Your task to perform on an android device: install app "Google News" Image 0: 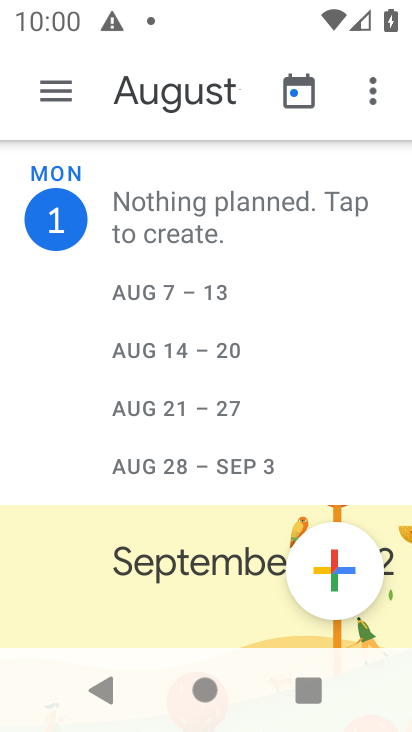
Step 0: press home button
Your task to perform on an android device: install app "Google News" Image 1: 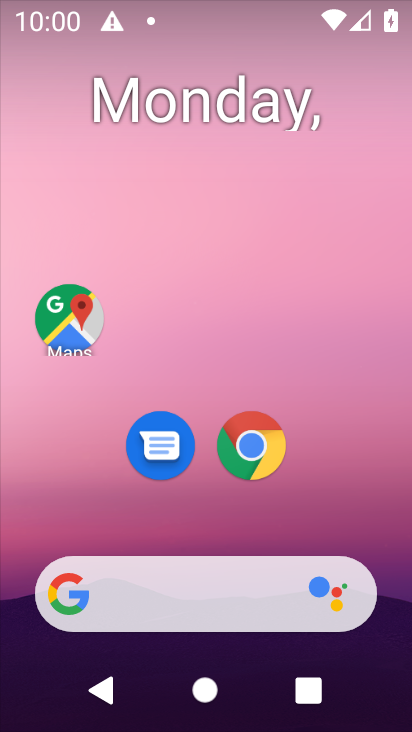
Step 1: drag from (384, 608) to (210, 170)
Your task to perform on an android device: install app "Google News" Image 2: 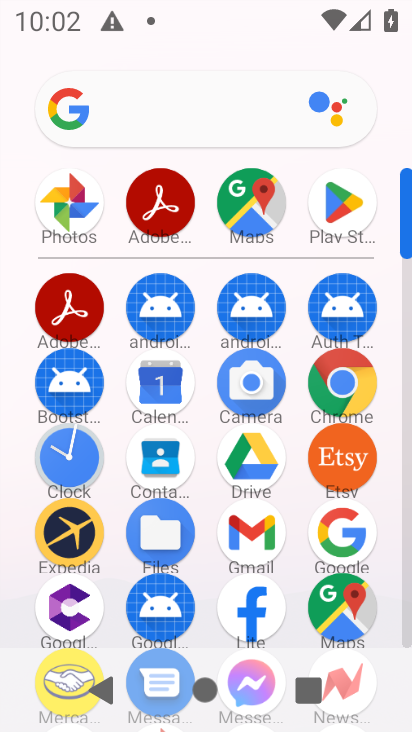
Step 2: click (336, 201)
Your task to perform on an android device: install app "Google News" Image 3: 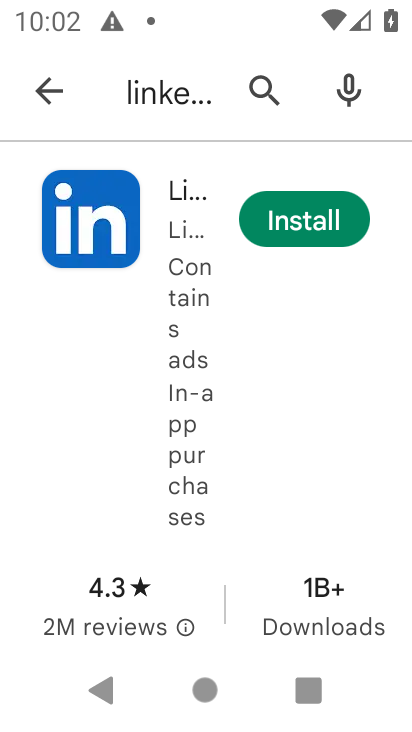
Step 3: press back button
Your task to perform on an android device: install app "Google News" Image 4: 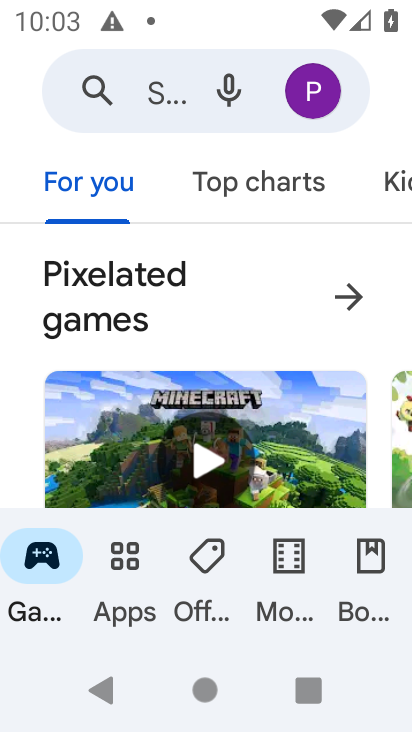
Step 4: click (175, 97)
Your task to perform on an android device: install app "Google News" Image 5: 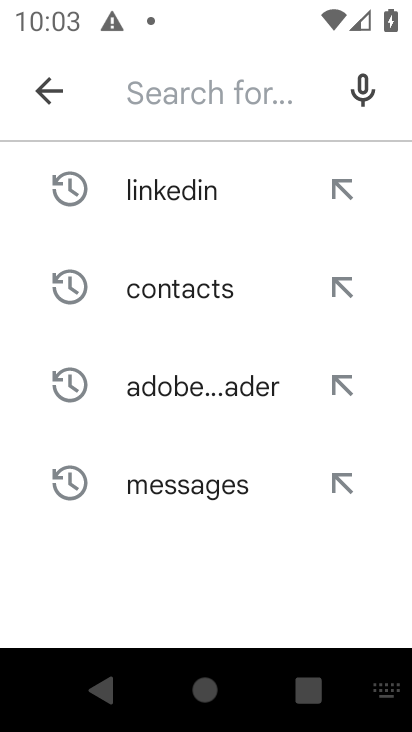
Step 5: type "Google News"
Your task to perform on an android device: install app "Google News" Image 6: 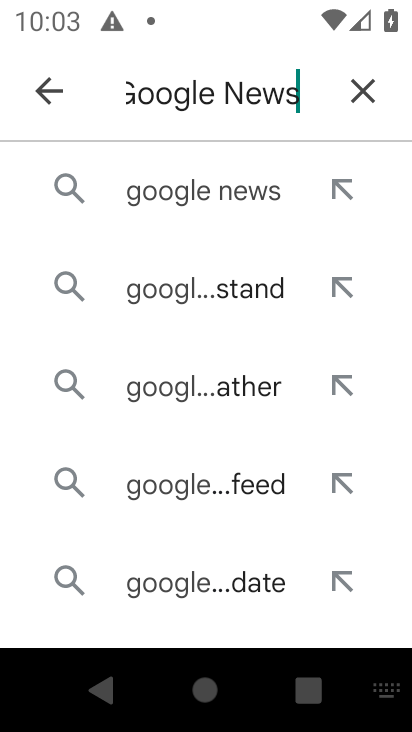
Step 6: click (184, 194)
Your task to perform on an android device: install app "Google News" Image 7: 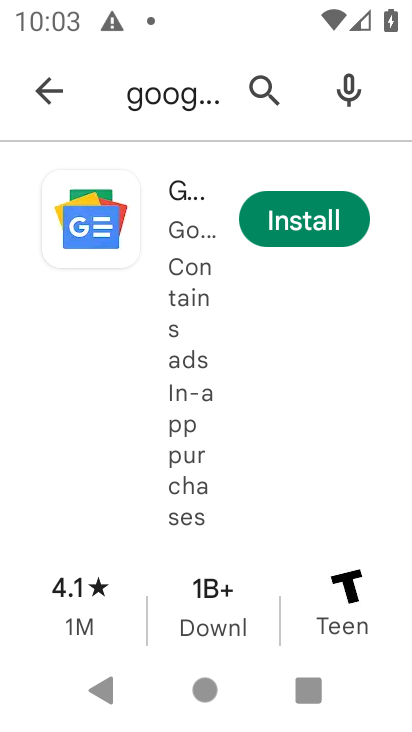
Step 7: click (327, 230)
Your task to perform on an android device: install app "Google News" Image 8: 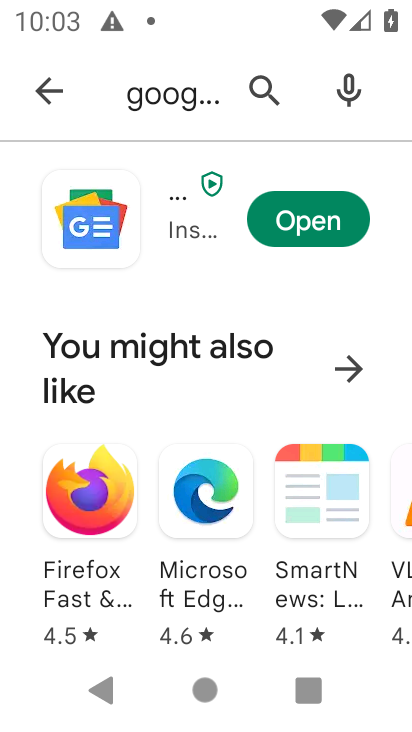
Step 8: task complete